Your task to perform on an android device: Open my contact list Image 0: 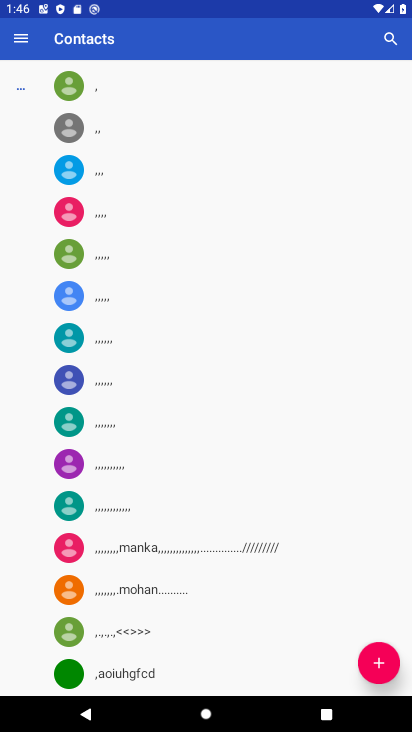
Step 0: press home button
Your task to perform on an android device: Open my contact list Image 1: 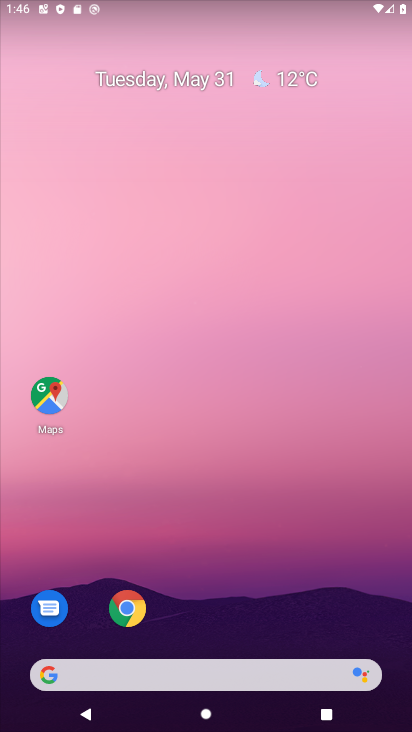
Step 1: drag from (353, 587) to (353, 219)
Your task to perform on an android device: Open my contact list Image 2: 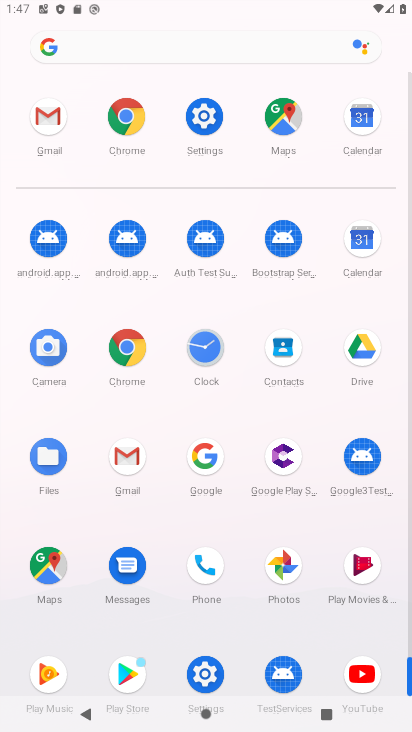
Step 2: click (292, 338)
Your task to perform on an android device: Open my contact list Image 3: 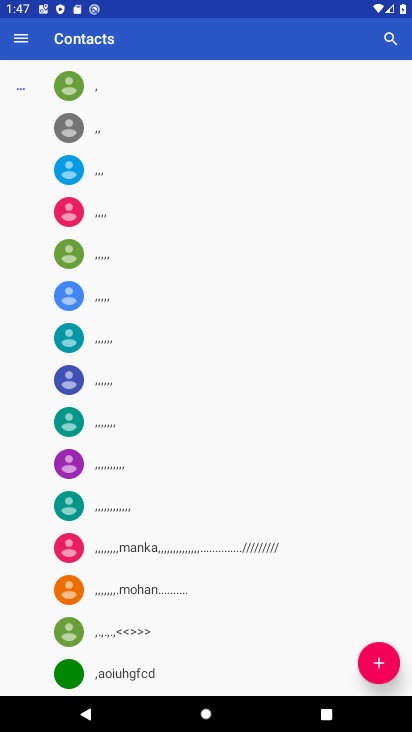
Step 3: task complete